Your task to perform on an android device: stop showing notifications on the lock screen Image 0: 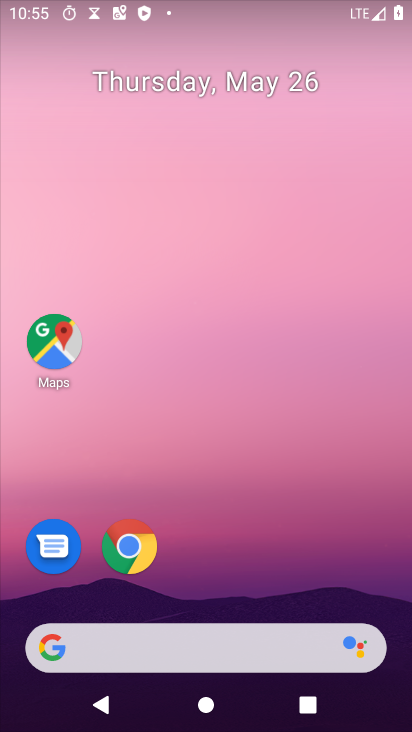
Step 0: drag from (354, 586) to (325, 72)
Your task to perform on an android device: stop showing notifications on the lock screen Image 1: 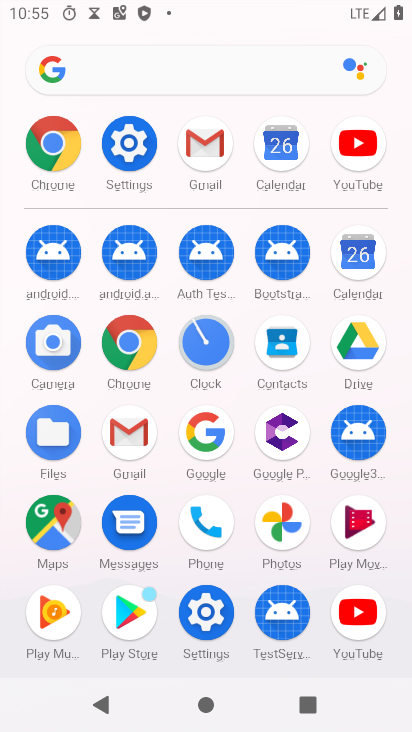
Step 1: click (205, 621)
Your task to perform on an android device: stop showing notifications on the lock screen Image 2: 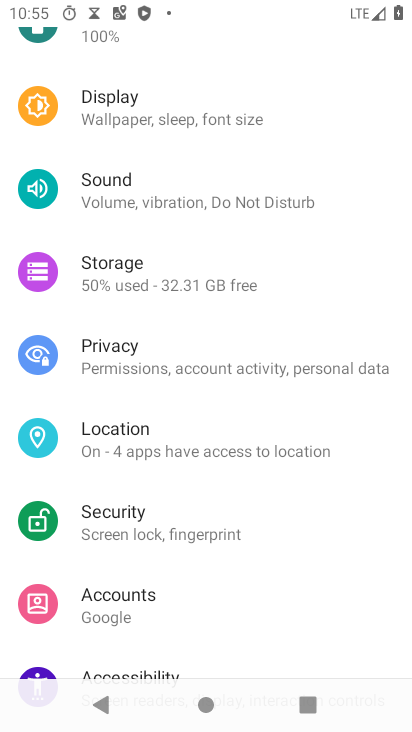
Step 2: drag from (195, 178) to (209, 551)
Your task to perform on an android device: stop showing notifications on the lock screen Image 3: 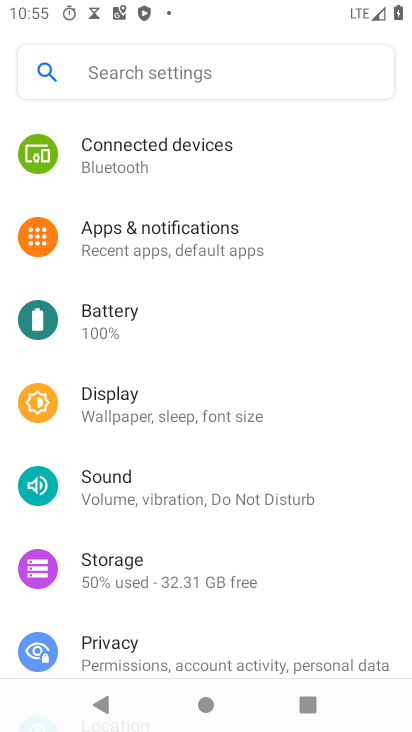
Step 3: click (176, 247)
Your task to perform on an android device: stop showing notifications on the lock screen Image 4: 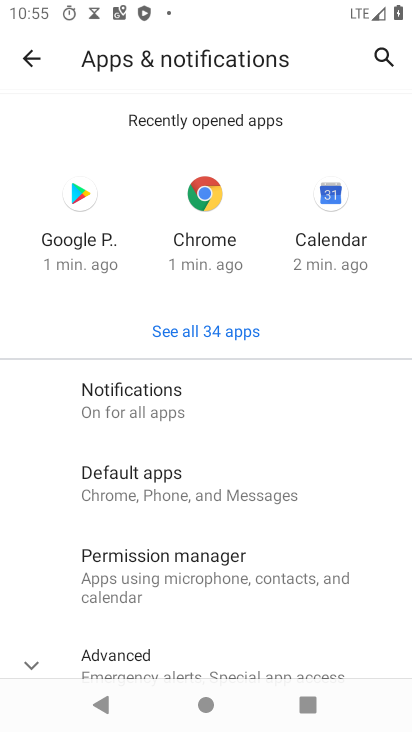
Step 4: click (140, 409)
Your task to perform on an android device: stop showing notifications on the lock screen Image 5: 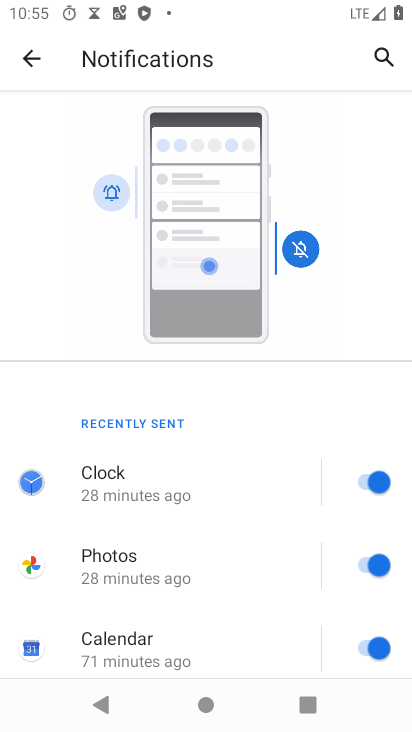
Step 5: drag from (248, 646) to (283, 281)
Your task to perform on an android device: stop showing notifications on the lock screen Image 6: 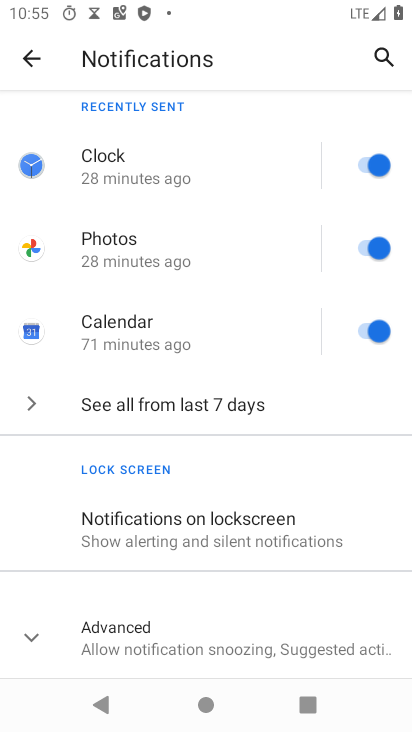
Step 6: click (236, 548)
Your task to perform on an android device: stop showing notifications on the lock screen Image 7: 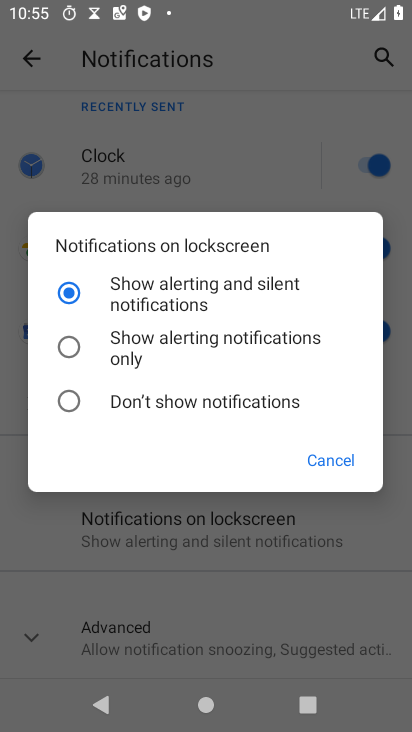
Step 7: click (44, 404)
Your task to perform on an android device: stop showing notifications on the lock screen Image 8: 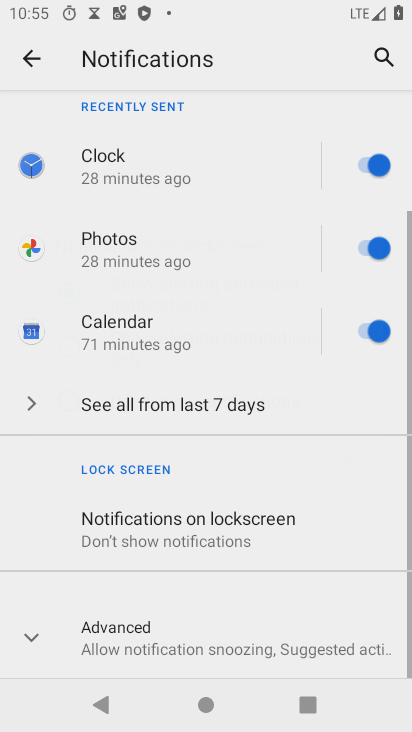
Step 8: click (58, 398)
Your task to perform on an android device: stop showing notifications on the lock screen Image 9: 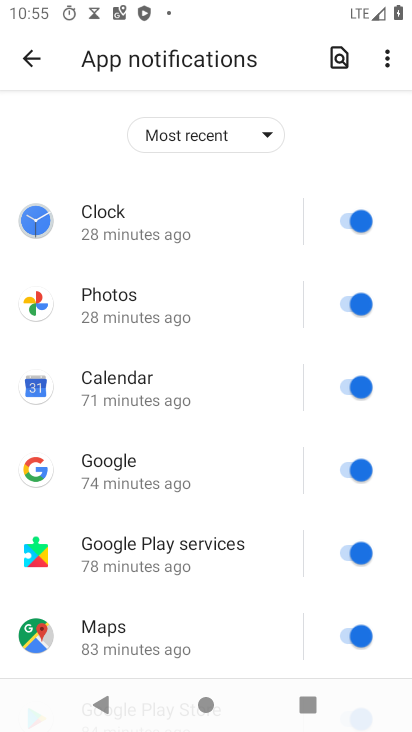
Step 9: task complete